Your task to perform on an android device: uninstall "Adobe Acrobat Reader" Image 0: 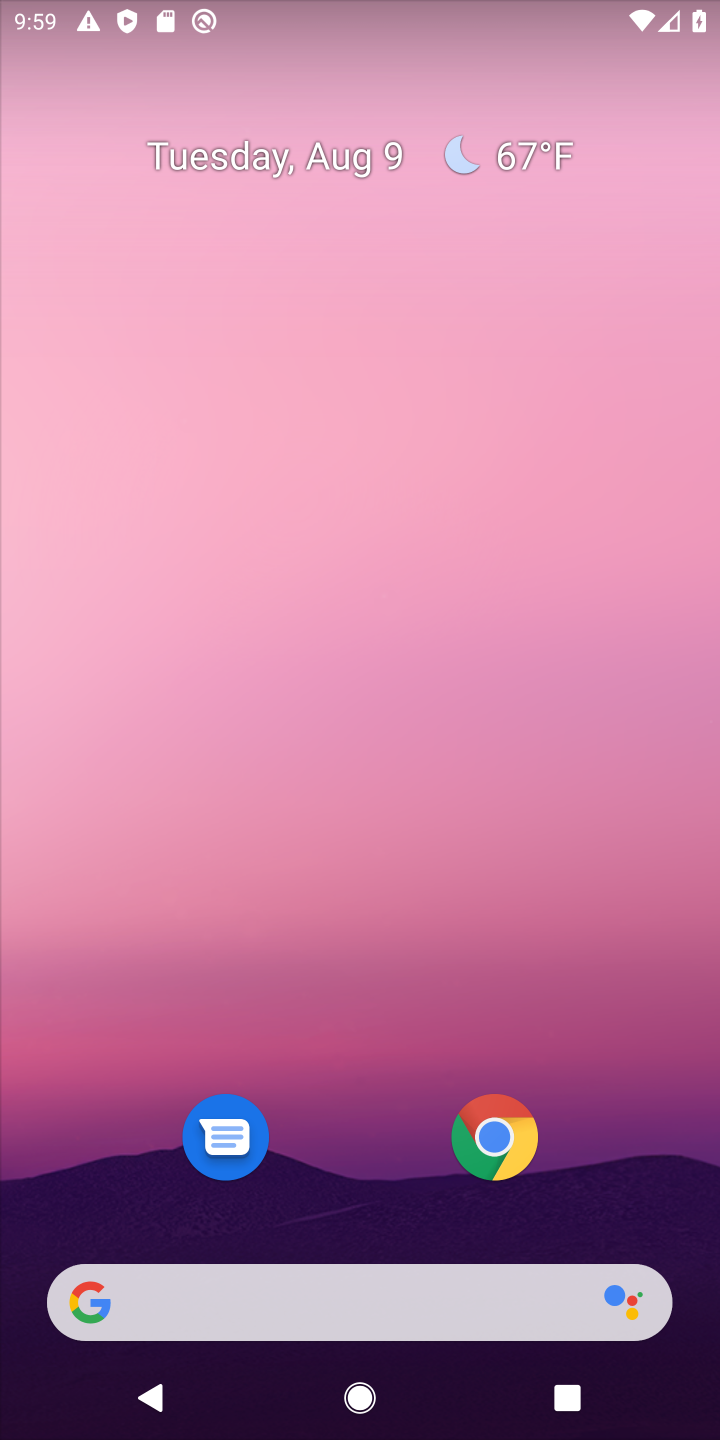
Step 0: drag from (650, 1113) to (390, 93)
Your task to perform on an android device: uninstall "Adobe Acrobat Reader" Image 1: 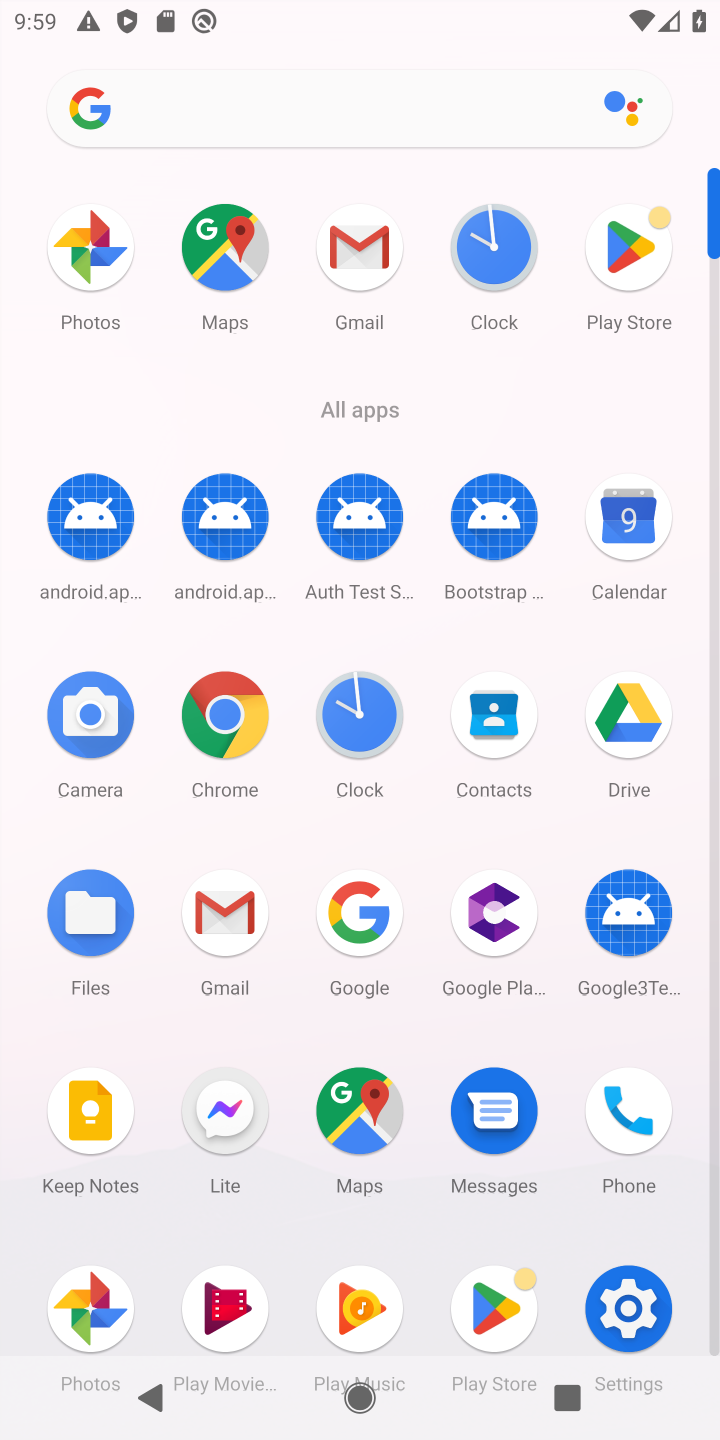
Step 1: click (630, 247)
Your task to perform on an android device: uninstall "Adobe Acrobat Reader" Image 2: 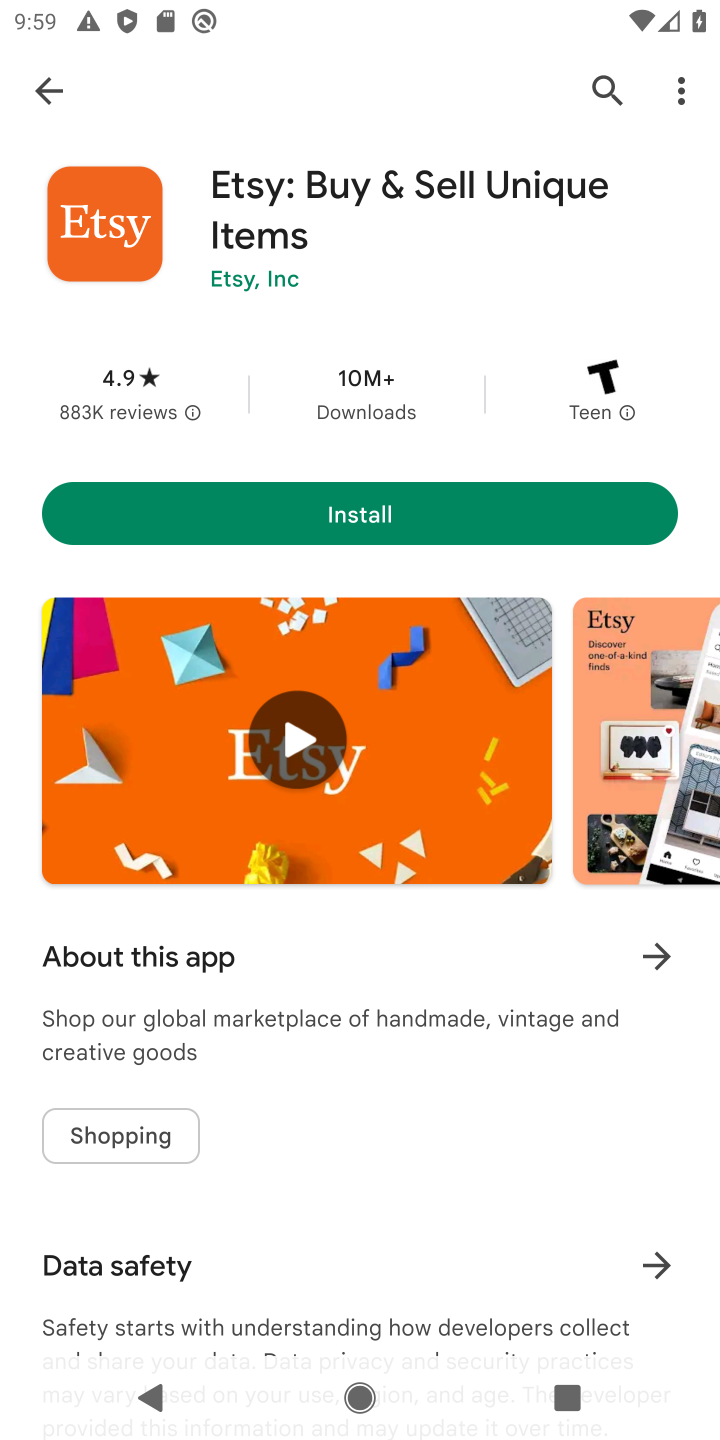
Step 2: press back button
Your task to perform on an android device: uninstall "Adobe Acrobat Reader" Image 3: 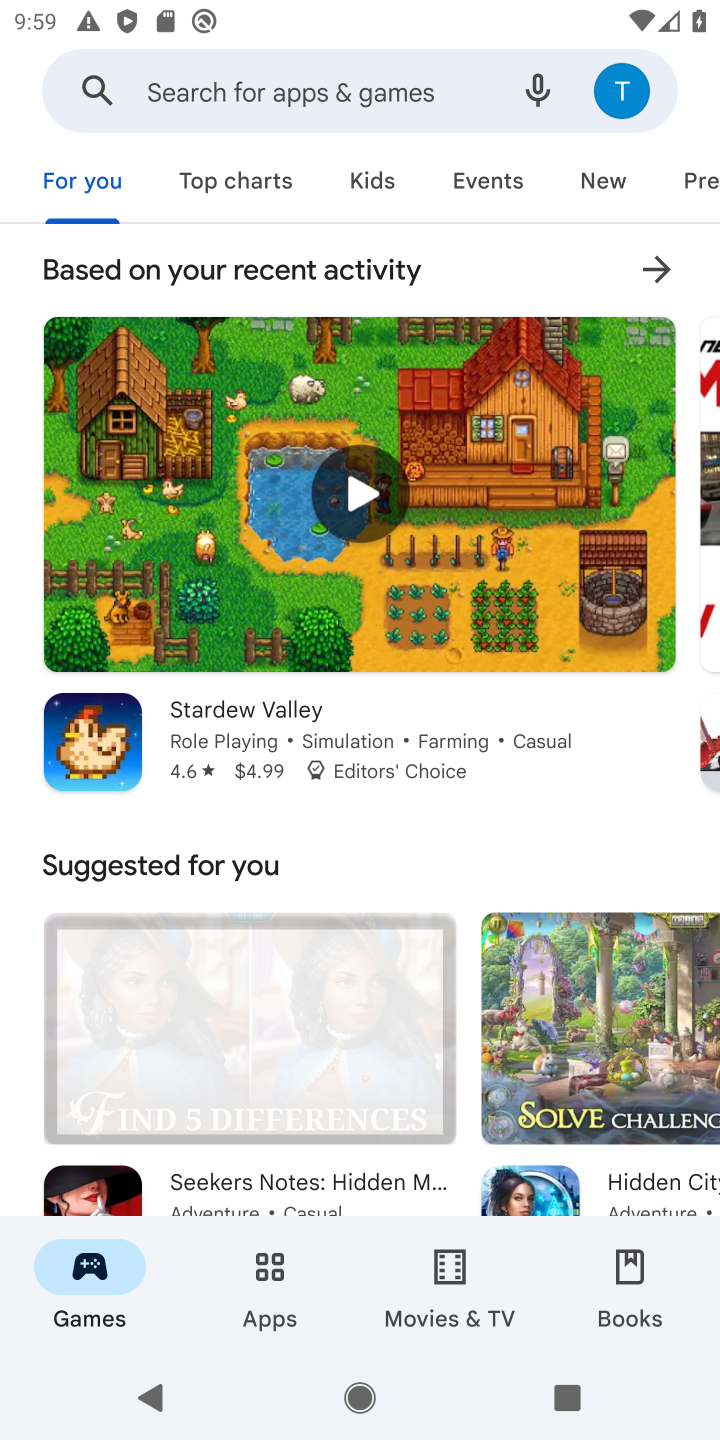
Step 3: click (269, 96)
Your task to perform on an android device: uninstall "Adobe Acrobat Reader" Image 4: 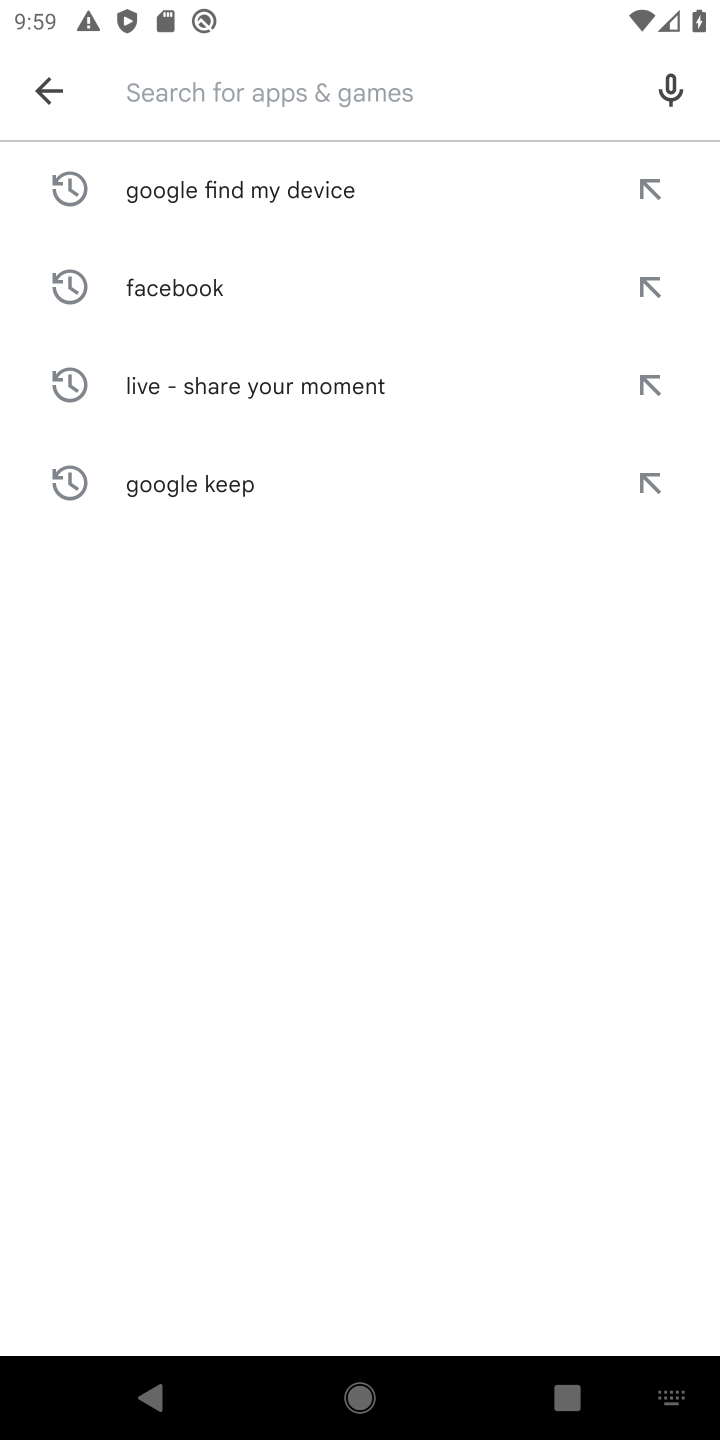
Step 4: type "Adobe Acrobat Reader"
Your task to perform on an android device: uninstall "Adobe Acrobat Reader" Image 5: 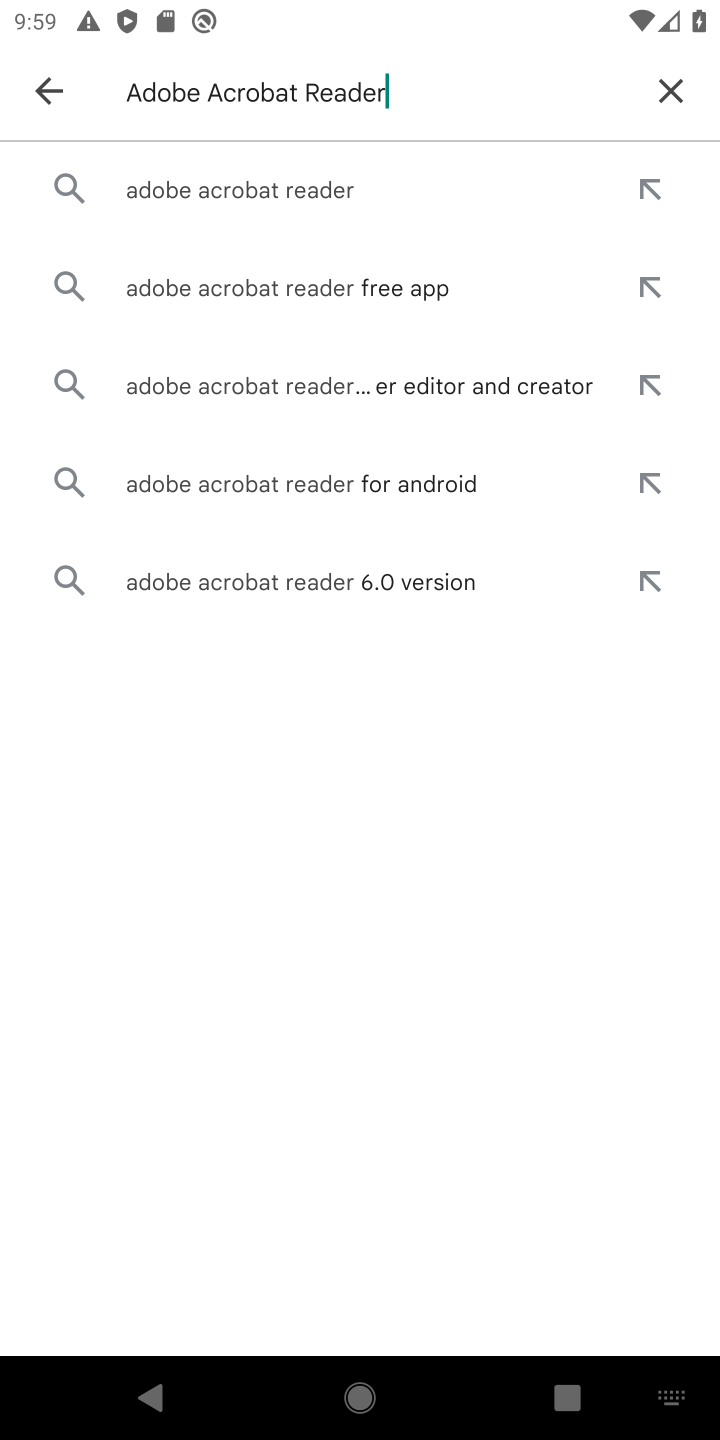
Step 5: click (191, 186)
Your task to perform on an android device: uninstall "Adobe Acrobat Reader" Image 6: 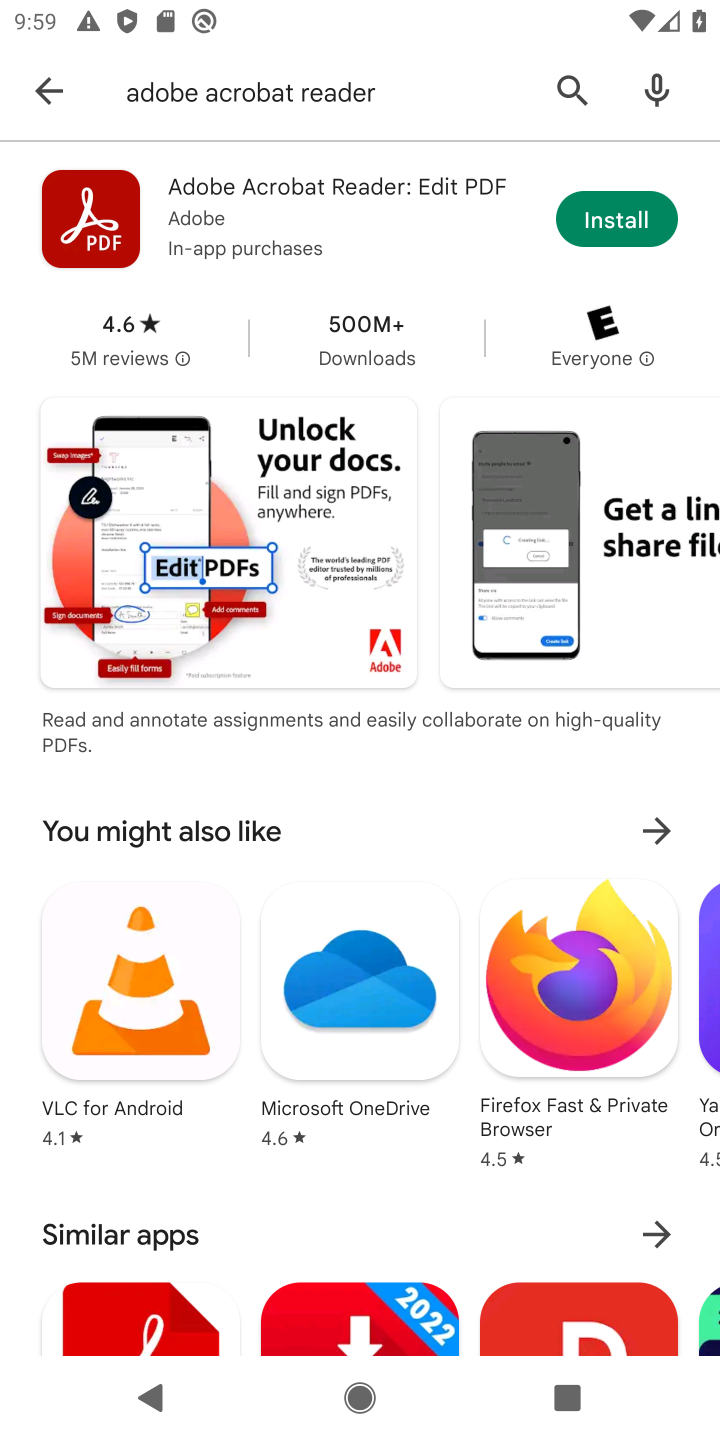
Step 6: task complete